Your task to perform on an android device: check data usage Image 0: 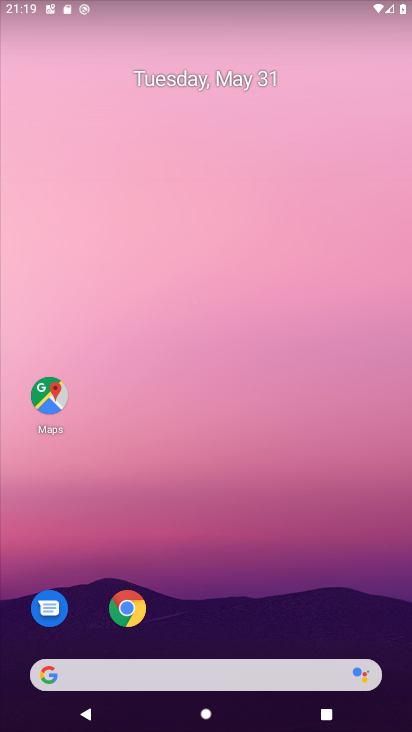
Step 0: drag from (281, 634) to (186, 75)
Your task to perform on an android device: check data usage Image 1: 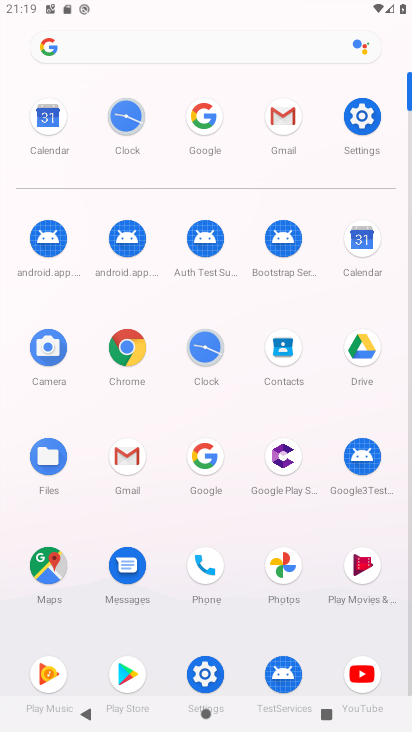
Step 1: click (363, 116)
Your task to perform on an android device: check data usage Image 2: 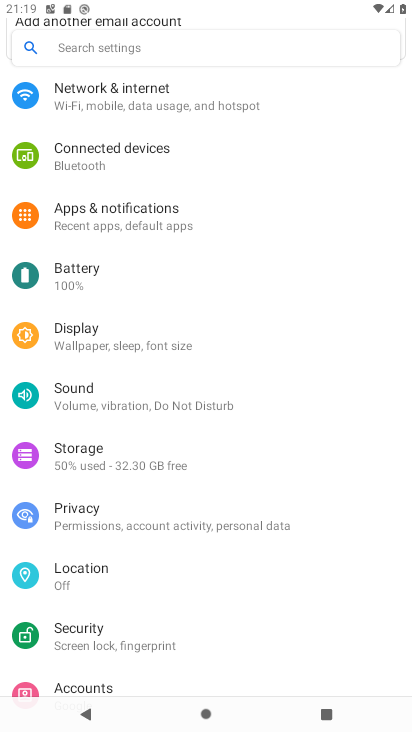
Step 2: drag from (223, 151) to (214, 265)
Your task to perform on an android device: check data usage Image 3: 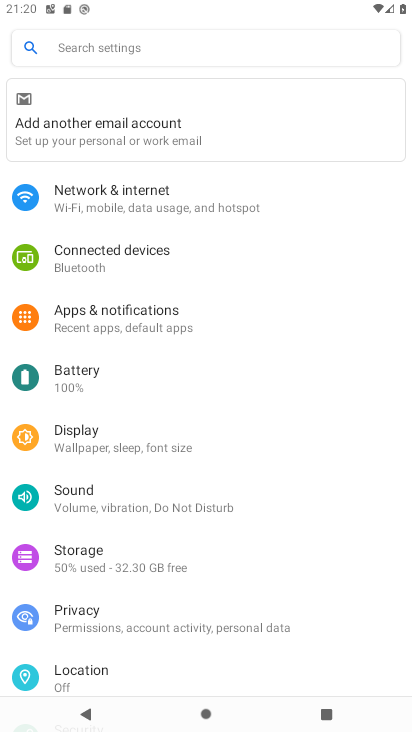
Step 3: click (197, 216)
Your task to perform on an android device: check data usage Image 4: 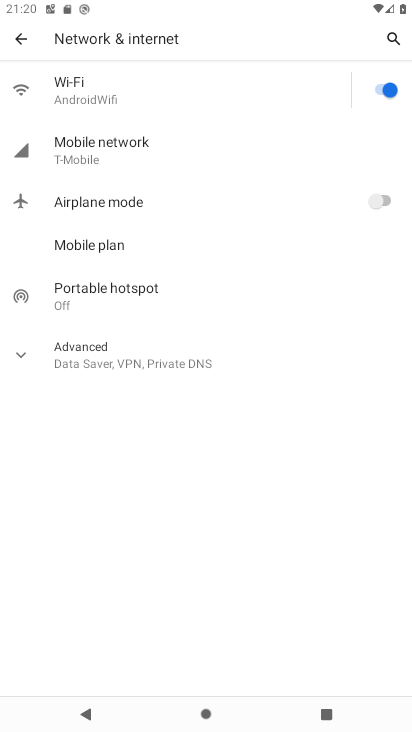
Step 4: click (109, 155)
Your task to perform on an android device: check data usage Image 5: 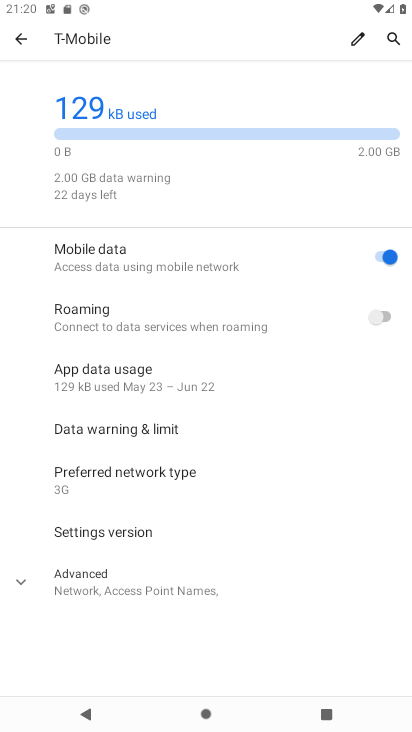
Step 5: task complete